Your task to perform on an android device: Add macbook pro 15 inch to the cart on ebay, then select checkout. Image 0: 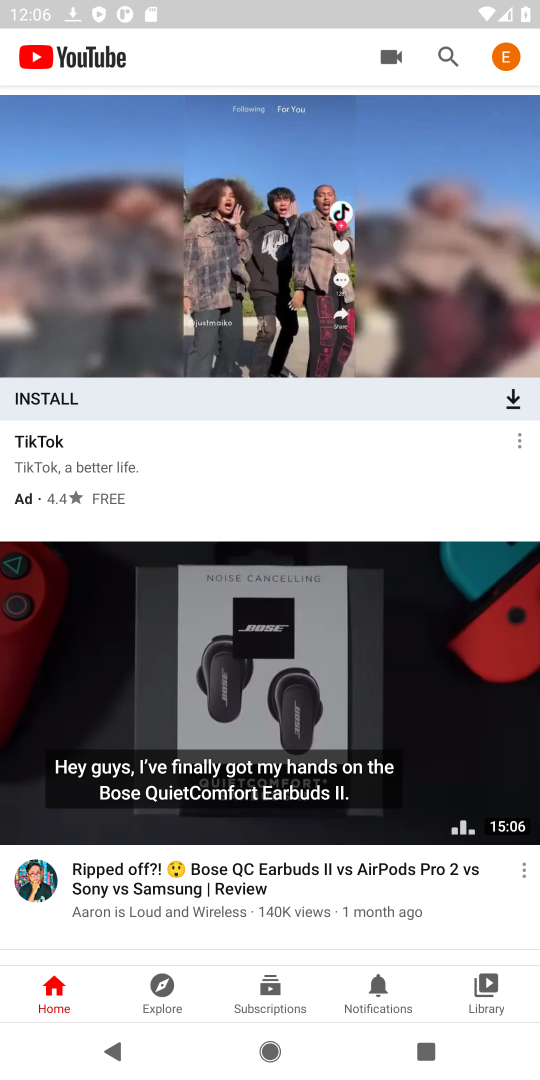
Step 0: press home button
Your task to perform on an android device: Add macbook pro 15 inch to the cart on ebay, then select checkout. Image 1: 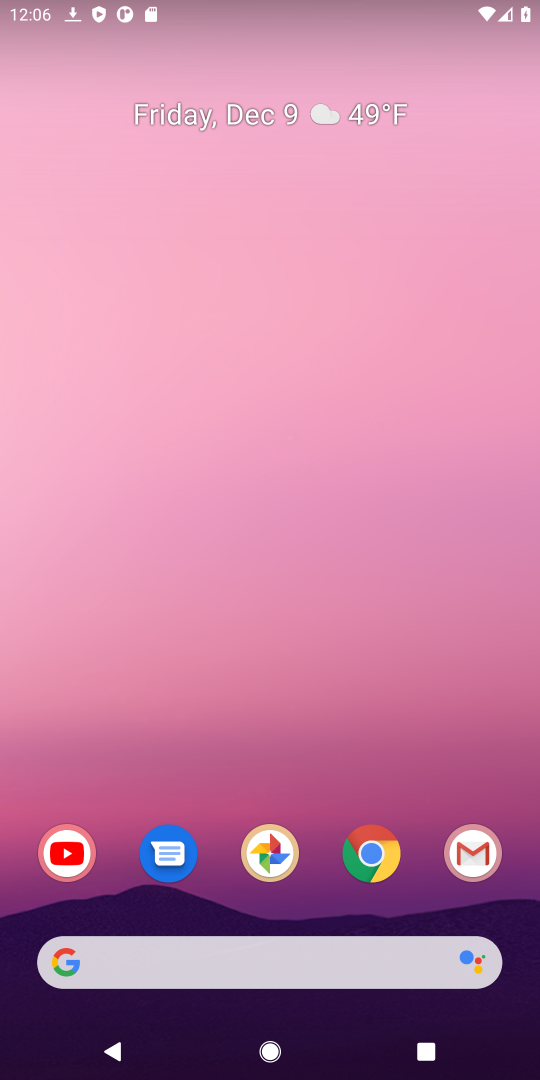
Step 1: drag from (197, 953) to (236, 22)
Your task to perform on an android device: Add macbook pro 15 inch to the cart on ebay, then select checkout. Image 2: 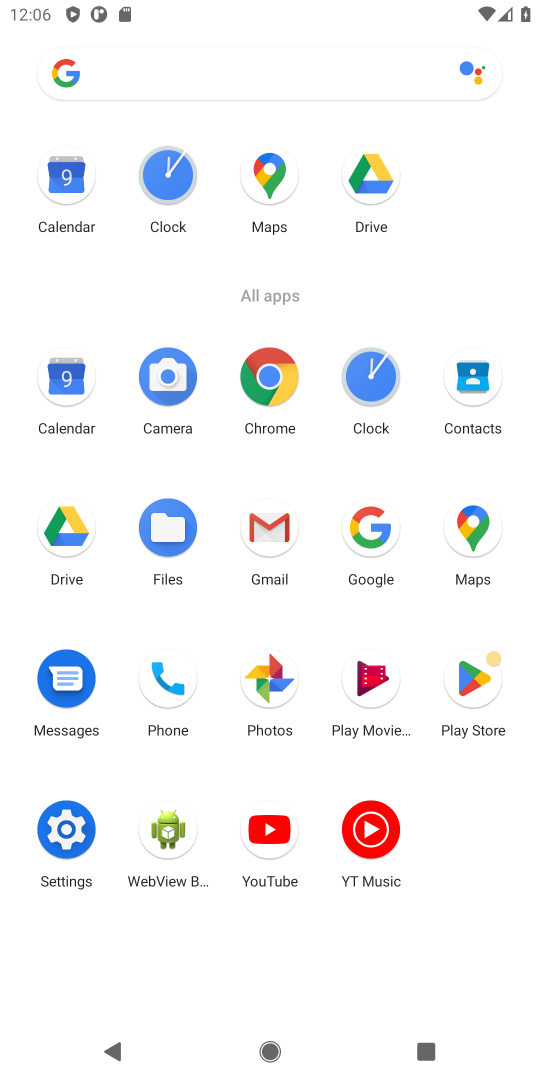
Step 2: click (381, 521)
Your task to perform on an android device: Add macbook pro 15 inch to the cart on ebay, then select checkout. Image 3: 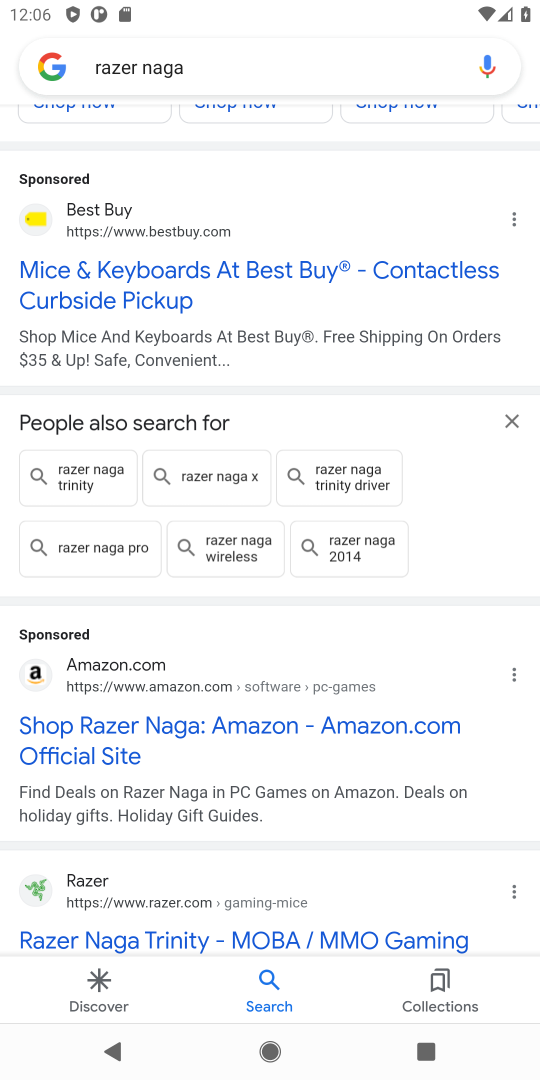
Step 3: drag from (334, 119) to (334, 597)
Your task to perform on an android device: Add macbook pro 15 inch to the cart on ebay, then select checkout. Image 4: 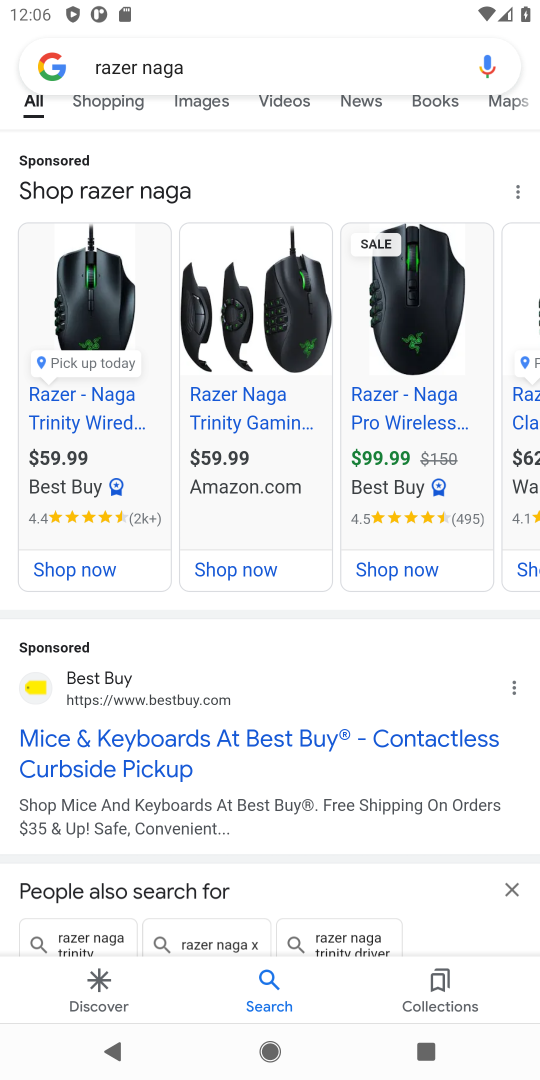
Step 4: drag from (307, 126) to (326, 763)
Your task to perform on an android device: Add macbook pro 15 inch to the cart on ebay, then select checkout. Image 5: 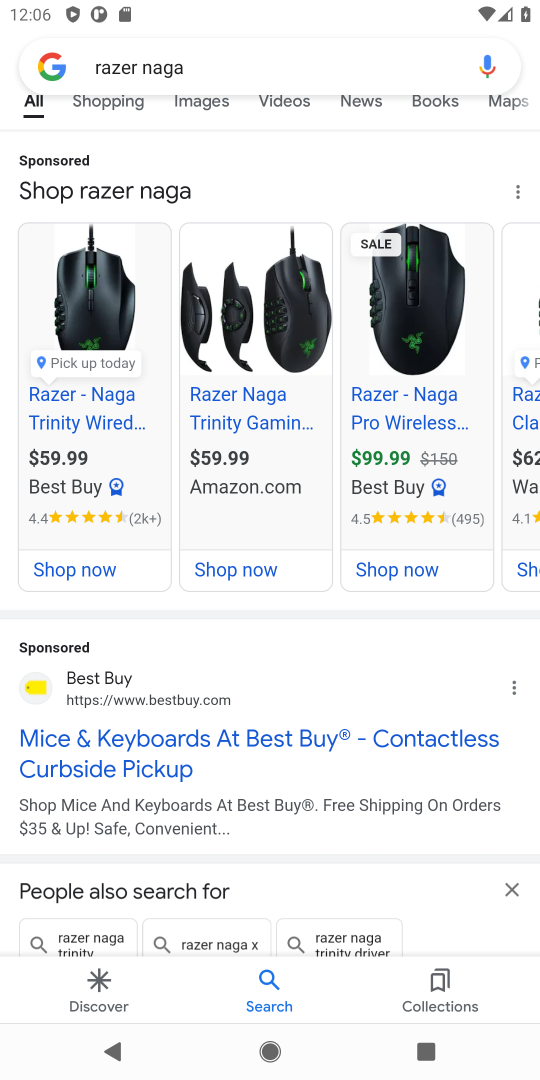
Step 5: click (200, 72)
Your task to perform on an android device: Add macbook pro 15 inch to the cart on ebay, then select checkout. Image 6: 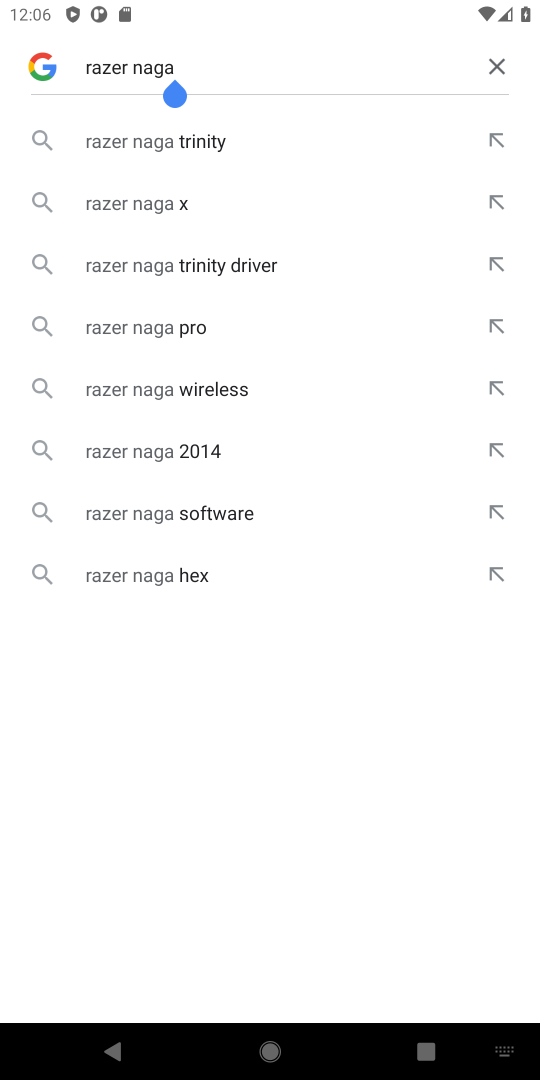
Step 6: click (491, 74)
Your task to perform on an android device: Add macbook pro 15 inch to the cart on ebay, then select checkout. Image 7: 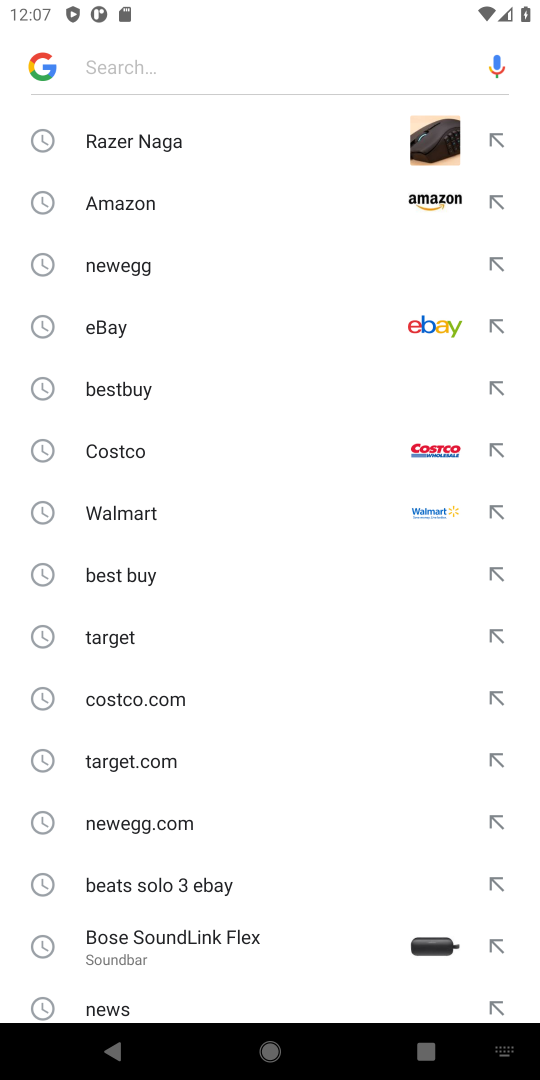
Step 7: type "macbook pro 15"
Your task to perform on an android device: Add macbook pro 15 inch to the cart on ebay, then select checkout. Image 8: 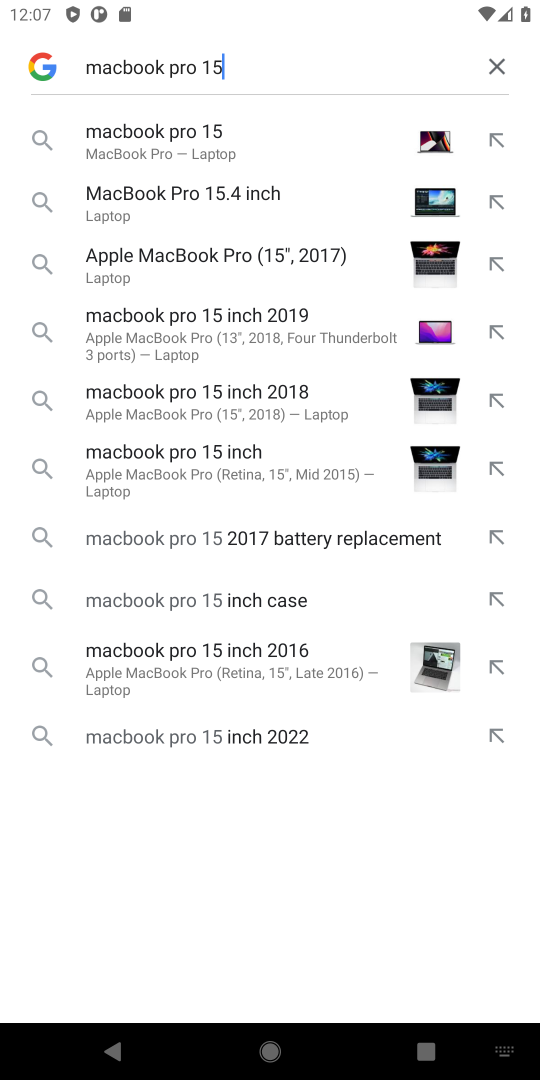
Step 8: click (200, 142)
Your task to perform on an android device: Add macbook pro 15 inch to the cart on ebay, then select checkout. Image 9: 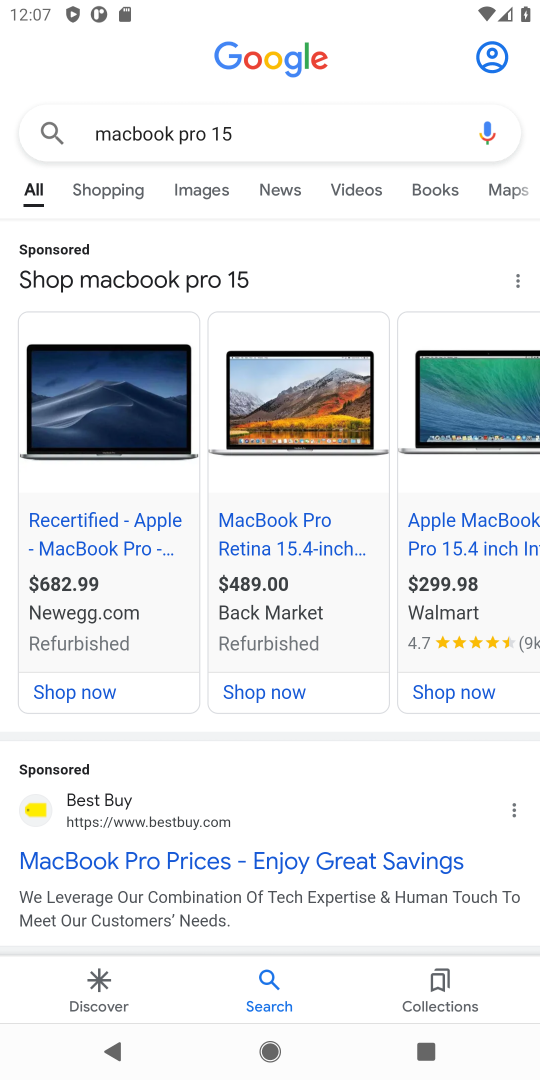
Step 9: click (224, 127)
Your task to perform on an android device: Add macbook pro 15 inch to the cart on ebay, then select checkout. Image 10: 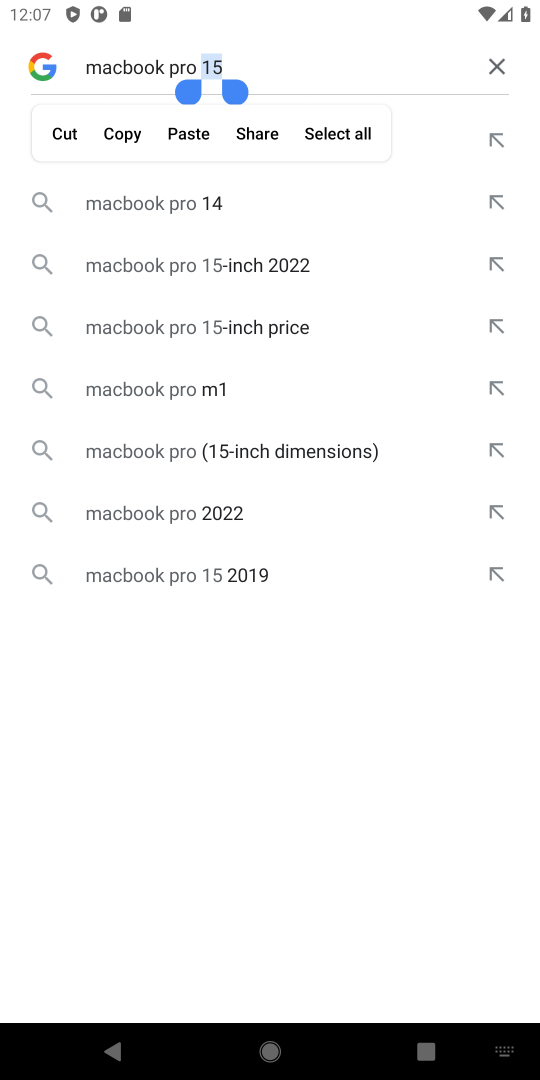
Step 10: click (497, 69)
Your task to perform on an android device: Add macbook pro 15 inch to the cart on ebay, then select checkout. Image 11: 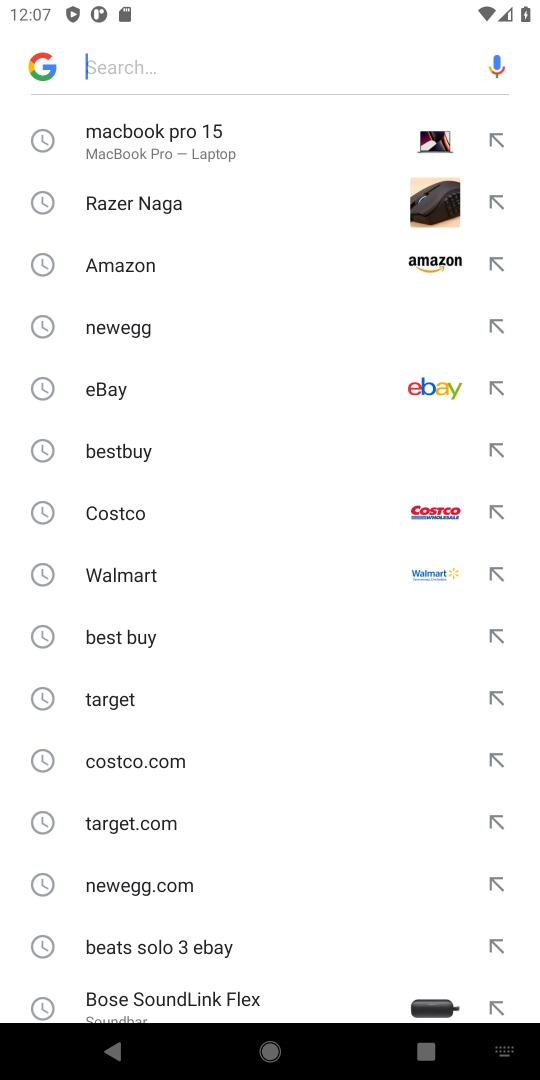
Step 11: type "ebay"
Your task to perform on an android device: Add macbook pro 15 inch to the cart on ebay, then select checkout. Image 12: 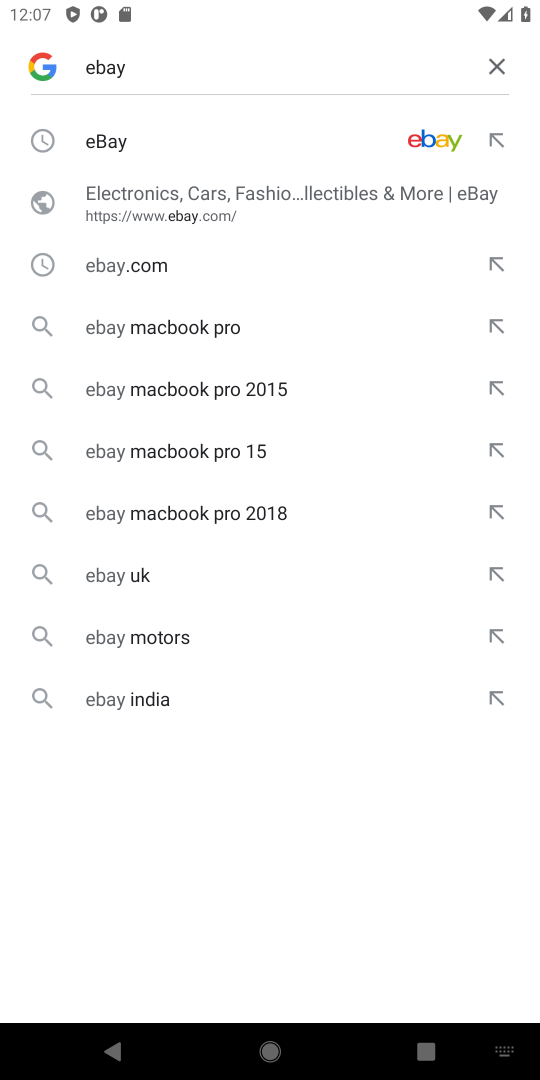
Step 12: click (110, 148)
Your task to perform on an android device: Add macbook pro 15 inch to the cart on ebay, then select checkout. Image 13: 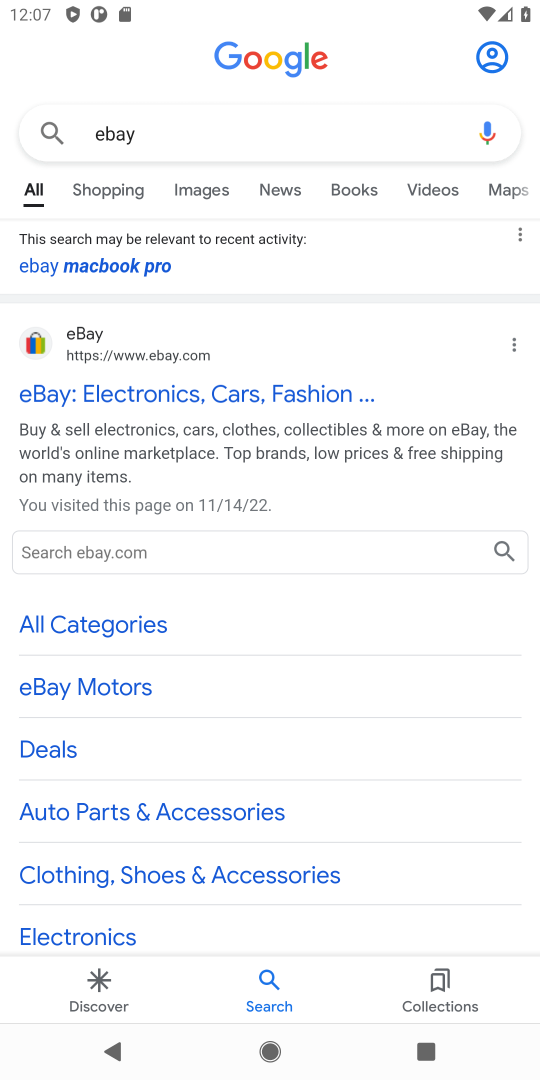
Step 13: click (126, 387)
Your task to perform on an android device: Add macbook pro 15 inch to the cart on ebay, then select checkout. Image 14: 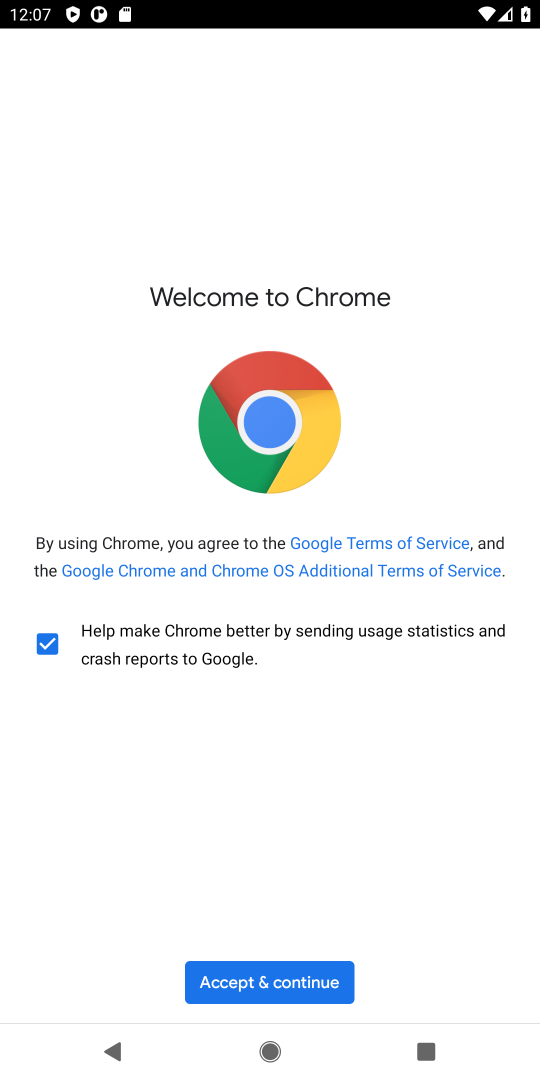
Step 14: click (283, 987)
Your task to perform on an android device: Add macbook pro 15 inch to the cart on ebay, then select checkout. Image 15: 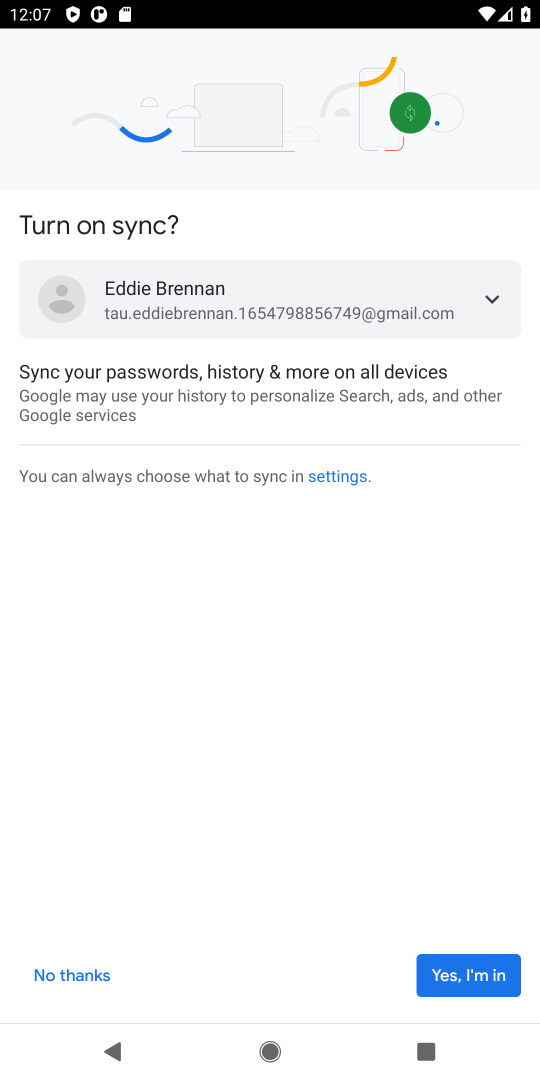
Step 15: click (465, 974)
Your task to perform on an android device: Add macbook pro 15 inch to the cart on ebay, then select checkout. Image 16: 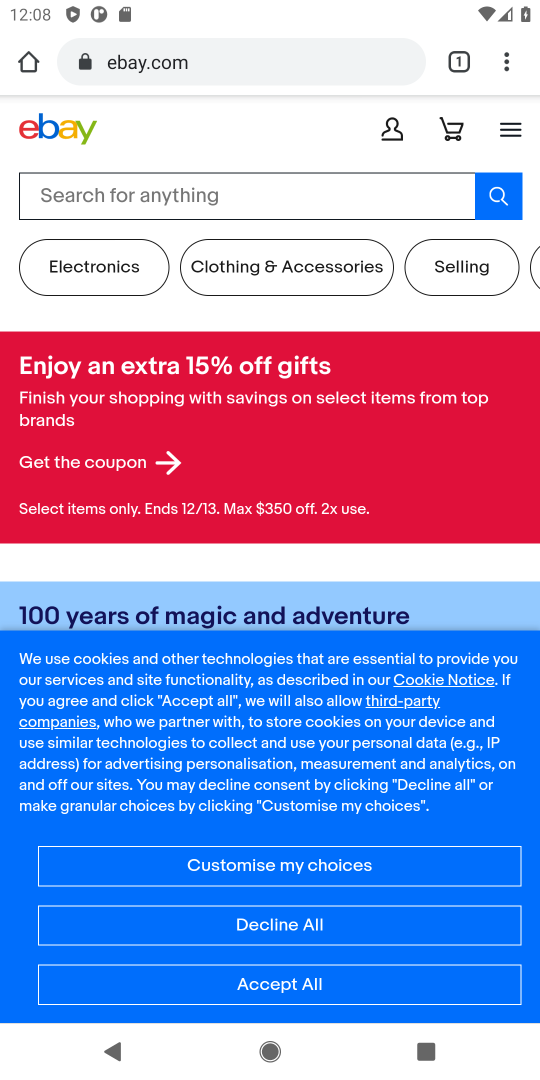
Step 16: click (312, 187)
Your task to perform on an android device: Add macbook pro 15 inch to the cart on ebay, then select checkout. Image 17: 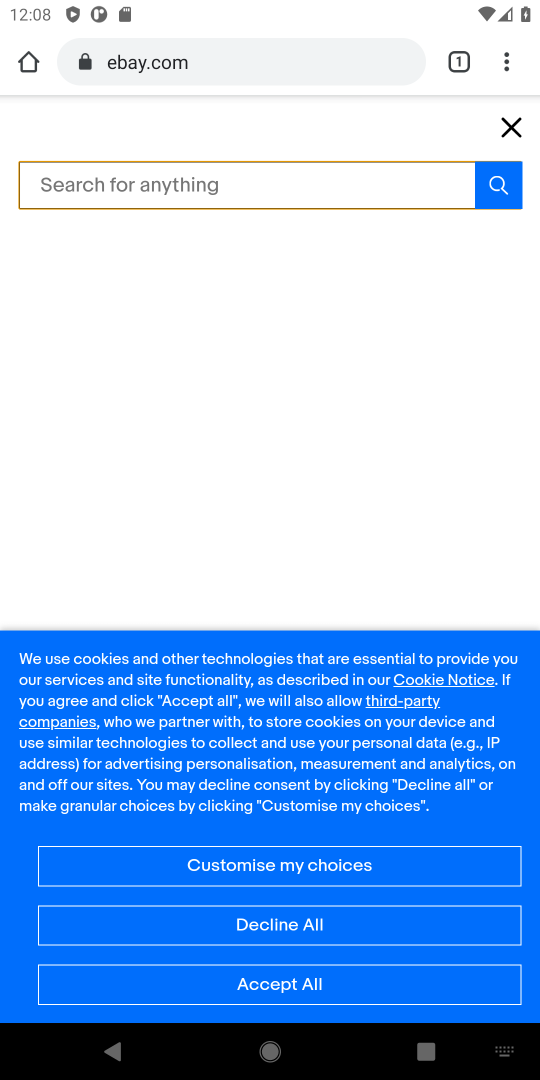
Step 17: click (223, 189)
Your task to perform on an android device: Add macbook pro 15 inch to the cart on ebay, then select checkout. Image 18: 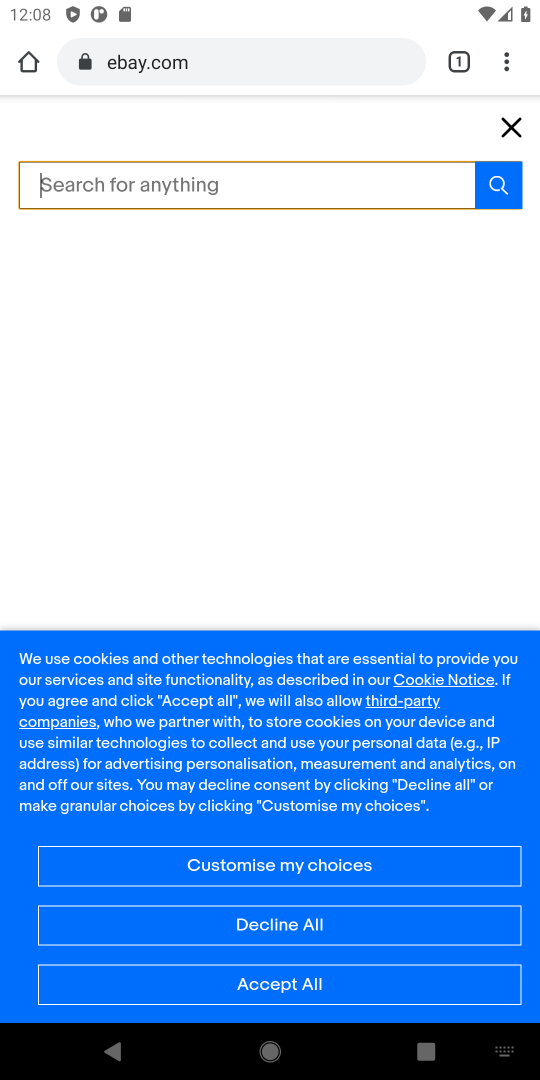
Step 18: click (122, 180)
Your task to perform on an android device: Add macbook pro 15 inch to the cart on ebay, then select checkout. Image 19: 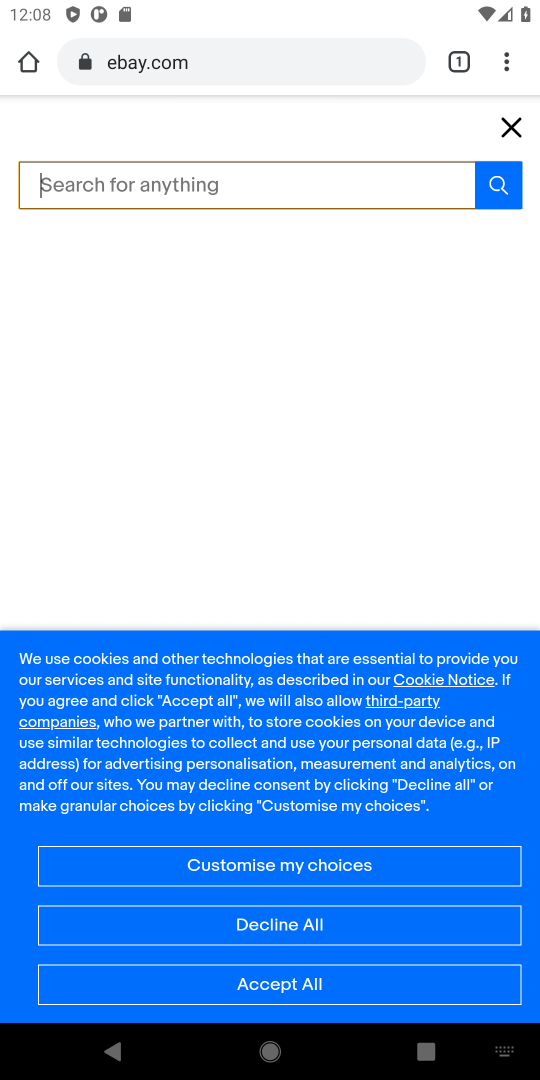
Step 19: click (68, 177)
Your task to perform on an android device: Add macbook pro 15 inch to the cart on ebay, then select checkout. Image 20: 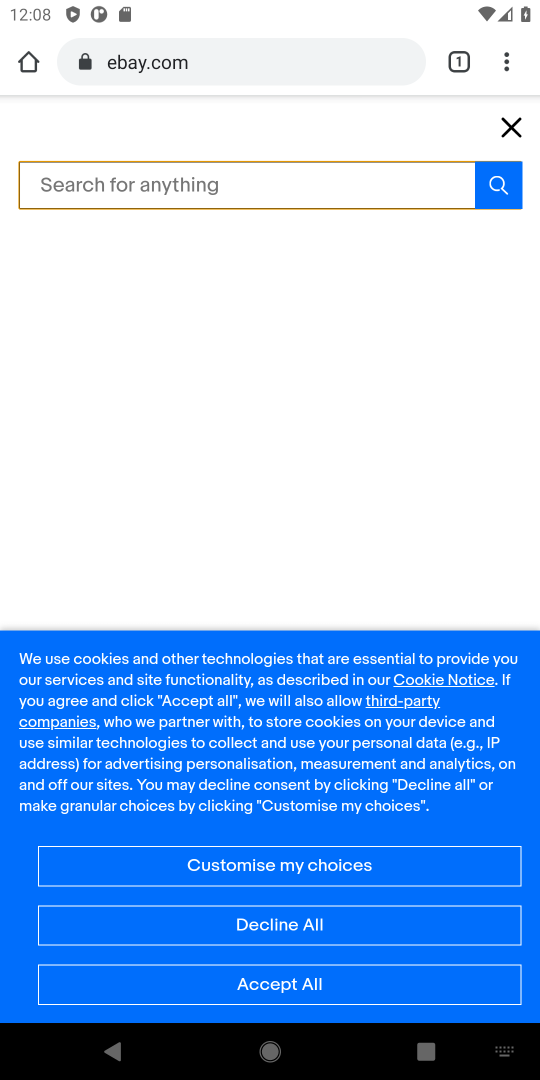
Step 20: click (68, 177)
Your task to perform on an android device: Add macbook pro 15 inch to the cart on ebay, then select checkout. Image 21: 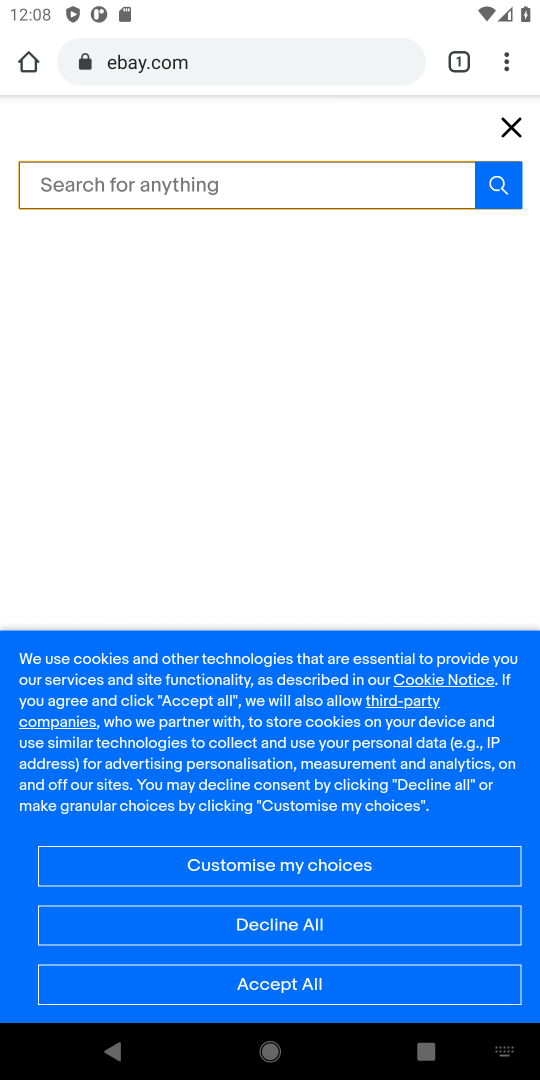
Step 21: type "macbook pro 15"
Your task to perform on an android device: Add macbook pro 15 inch to the cart on ebay, then select checkout. Image 22: 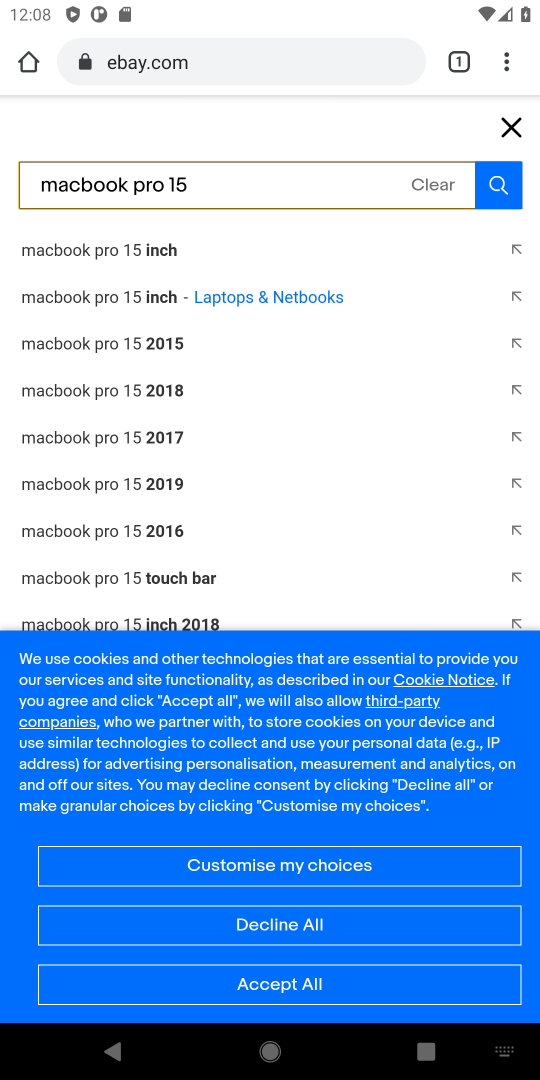
Step 22: click (503, 183)
Your task to perform on an android device: Add macbook pro 15 inch to the cart on ebay, then select checkout. Image 23: 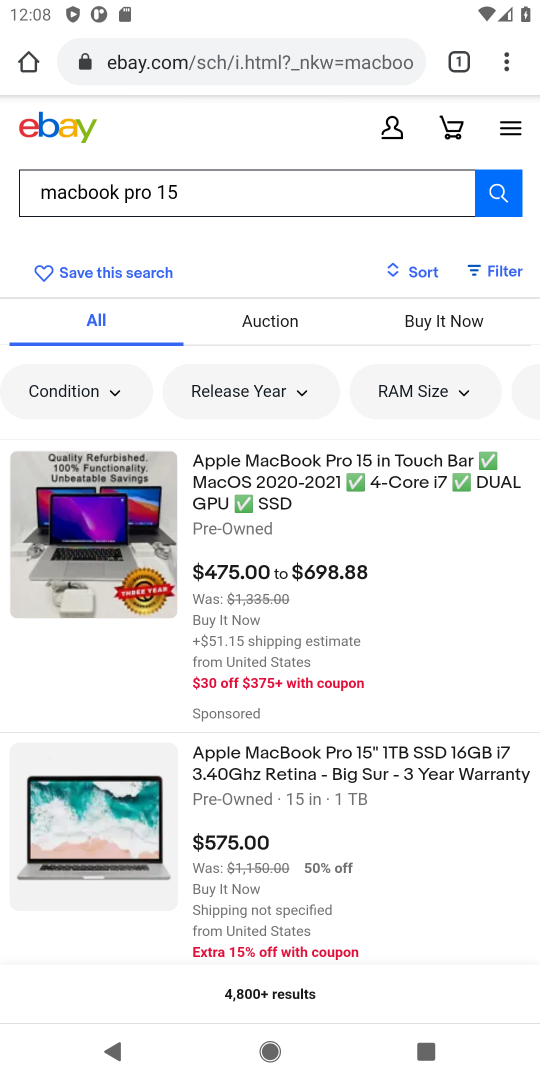
Step 23: click (275, 500)
Your task to perform on an android device: Add macbook pro 15 inch to the cart on ebay, then select checkout. Image 24: 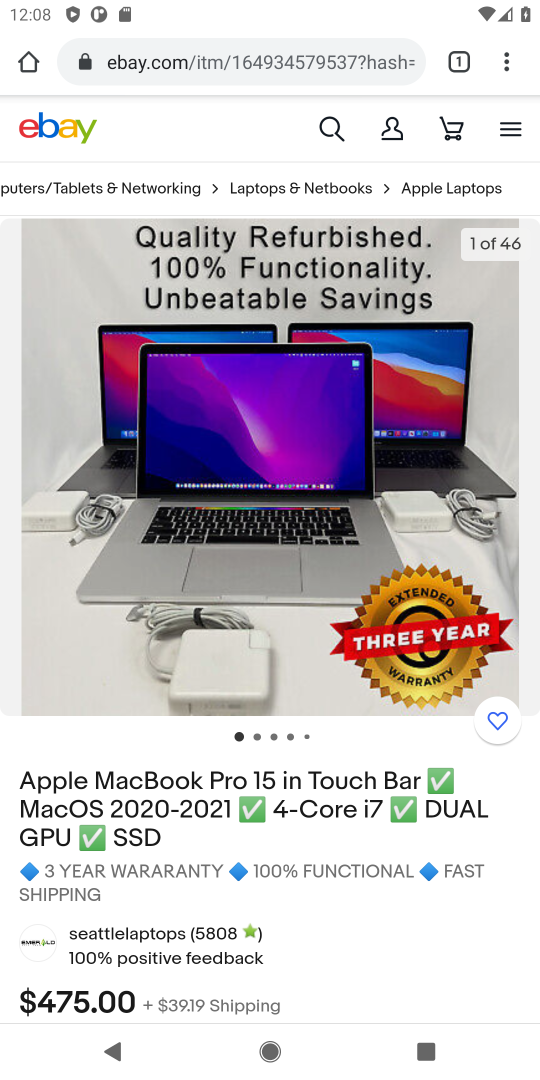
Step 24: drag from (361, 974) to (469, 104)
Your task to perform on an android device: Add macbook pro 15 inch to the cart on ebay, then select checkout. Image 25: 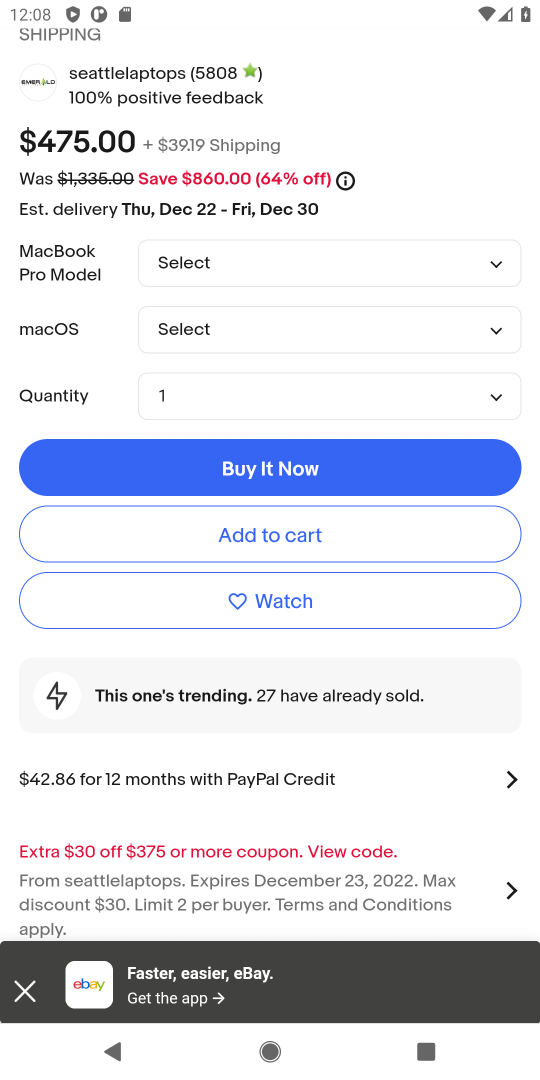
Step 25: click (243, 535)
Your task to perform on an android device: Add macbook pro 15 inch to the cart on ebay, then select checkout. Image 26: 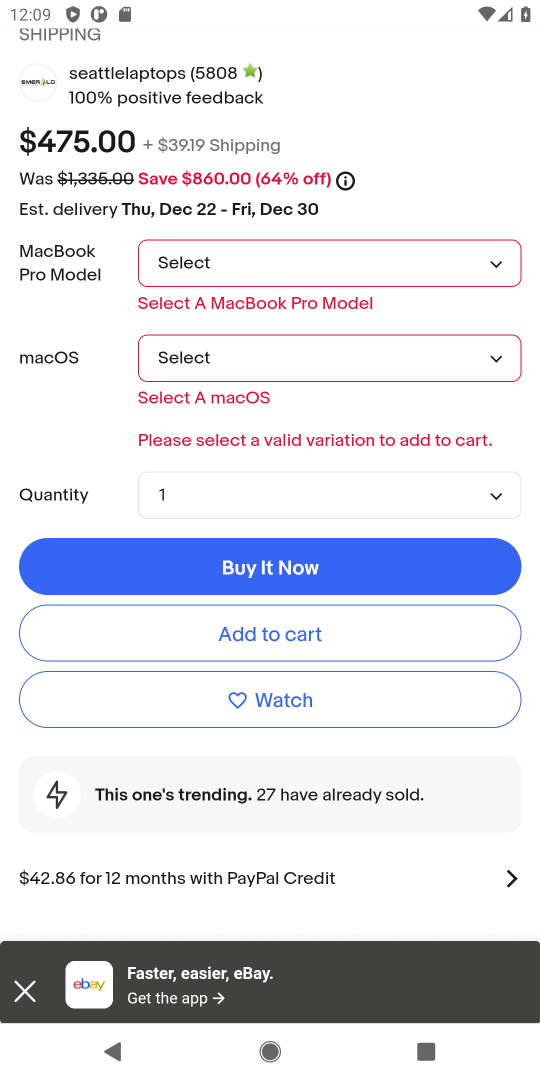
Step 26: click (501, 276)
Your task to perform on an android device: Add macbook pro 15 inch to the cart on ebay, then select checkout. Image 27: 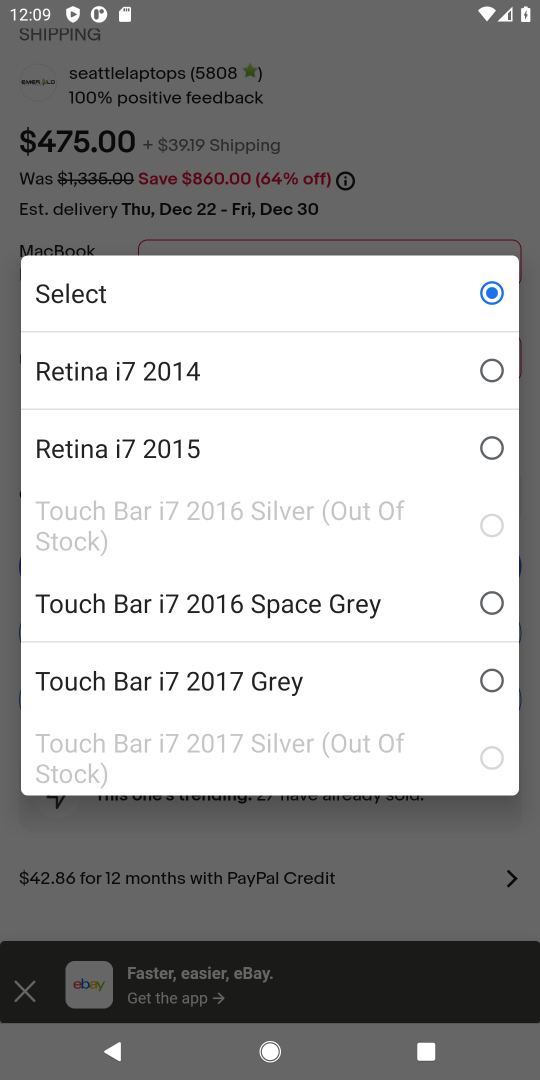
Step 27: click (14, 66)
Your task to perform on an android device: Add macbook pro 15 inch to the cart on ebay, then select checkout. Image 28: 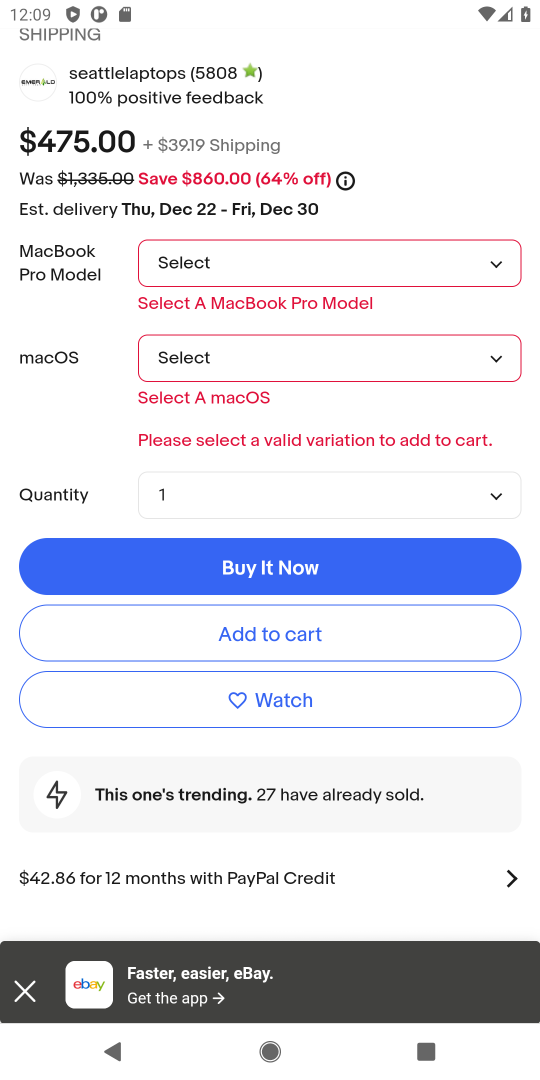
Step 28: click (502, 254)
Your task to perform on an android device: Add macbook pro 15 inch to the cart on ebay, then select checkout. Image 29: 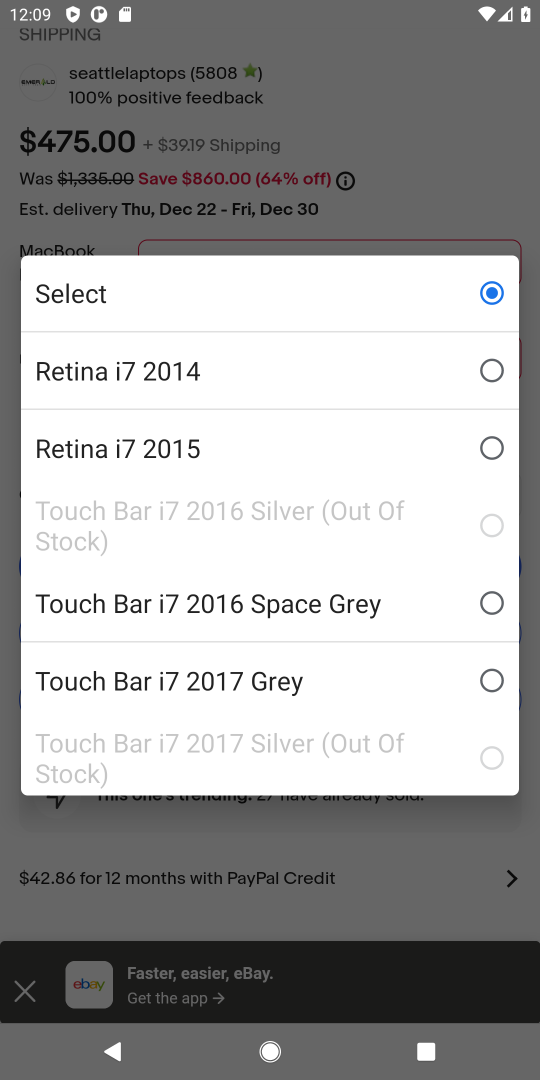
Step 29: click (494, 269)
Your task to perform on an android device: Add macbook pro 15 inch to the cart on ebay, then select checkout. Image 30: 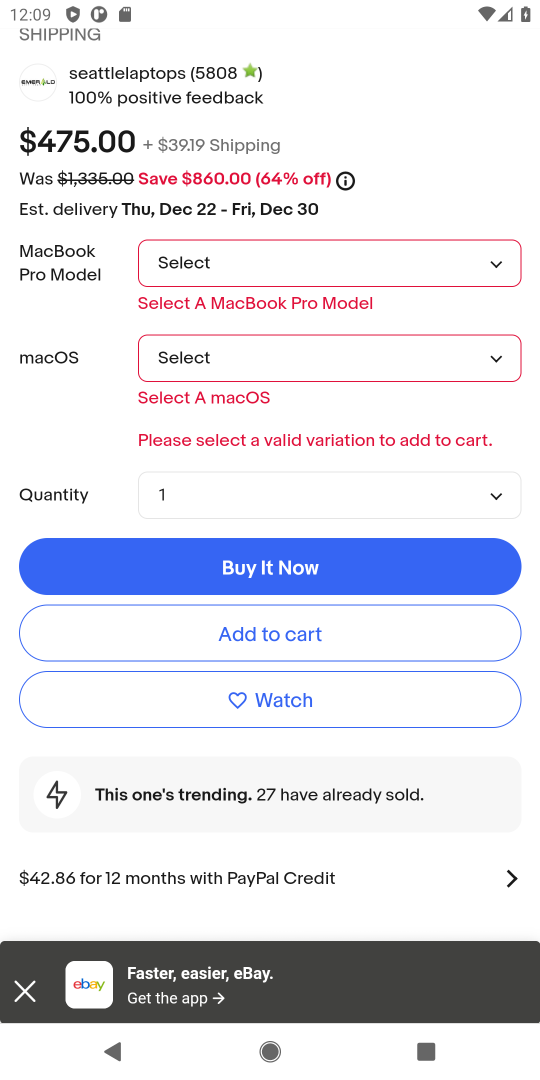
Step 30: click (497, 367)
Your task to perform on an android device: Add macbook pro 15 inch to the cart on ebay, then select checkout. Image 31: 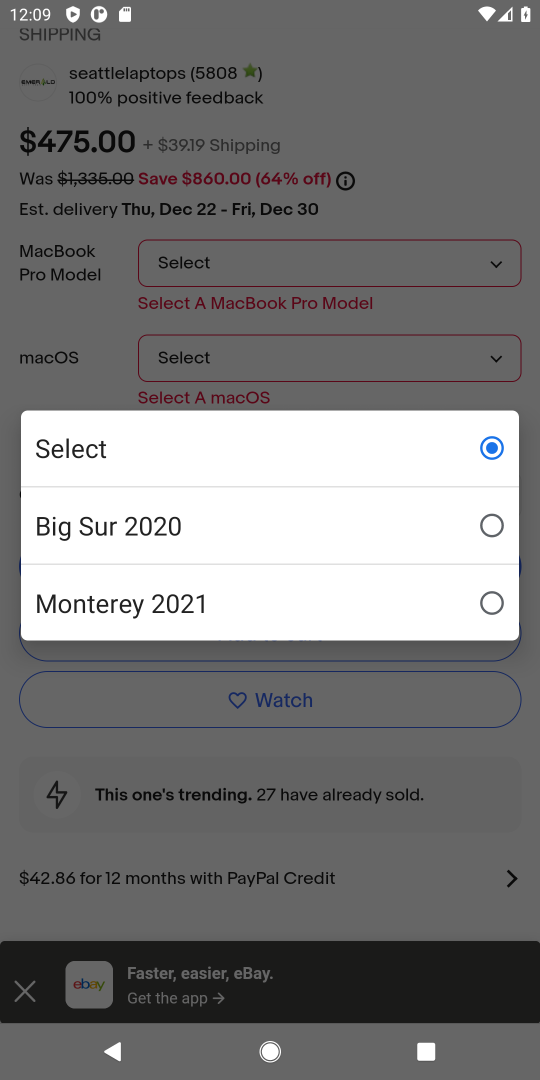
Step 31: click (490, 605)
Your task to perform on an android device: Add macbook pro 15 inch to the cart on ebay, then select checkout. Image 32: 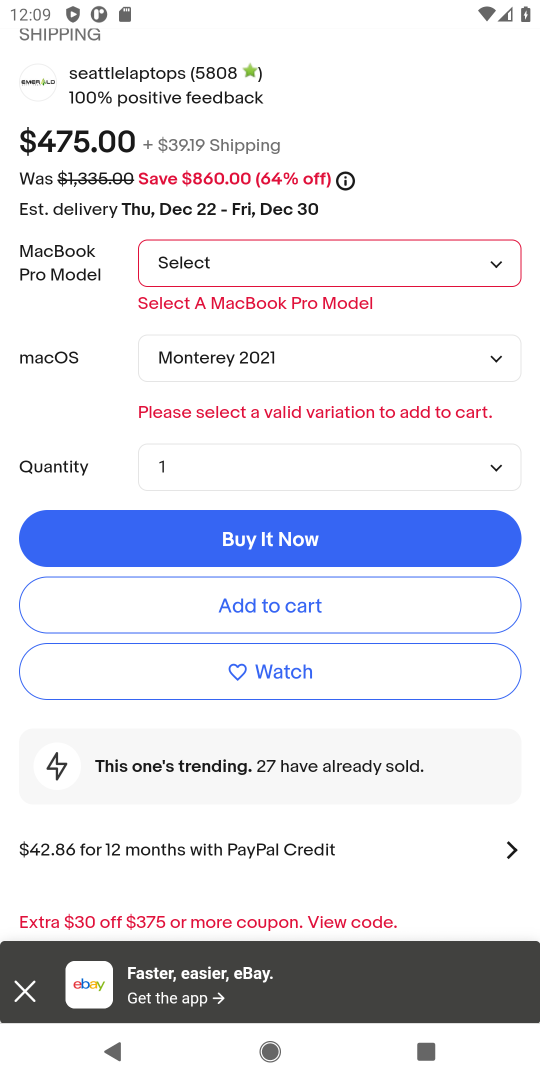
Step 32: click (505, 258)
Your task to perform on an android device: Add macbook pro 15 inch to the cart on ebay, then select checkout. Image 33: 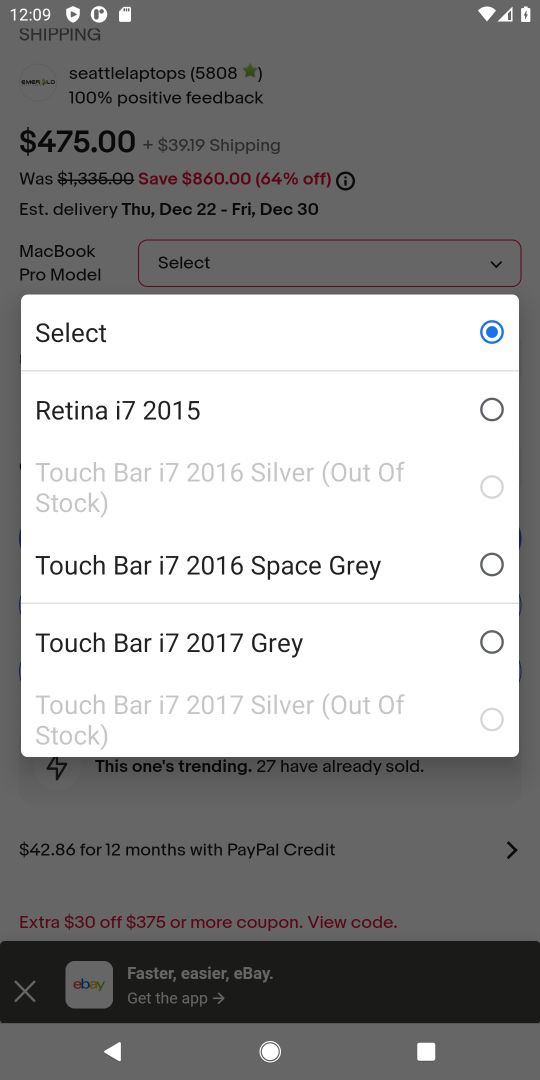
Step 33: click (496, 403)
Your task to perform on an android device: Add macbook pro 15 inch to the cart on ebay, then select checkout. Image 34: 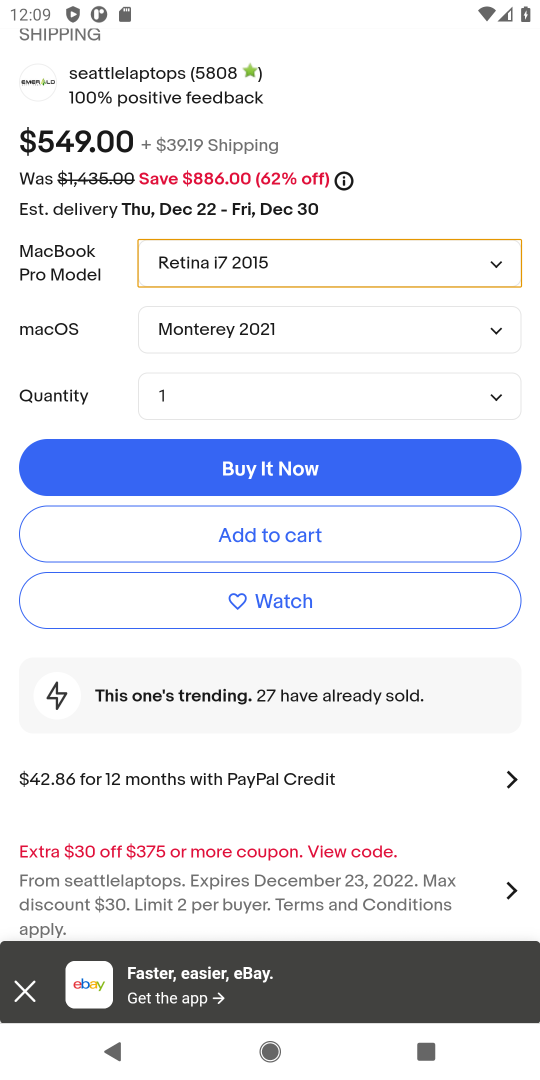
Step 34: click (294, 535)
Your task to perform on an android device: Add macbook pro 15 inch to the cart on ebay, then select checkout. Image 35: 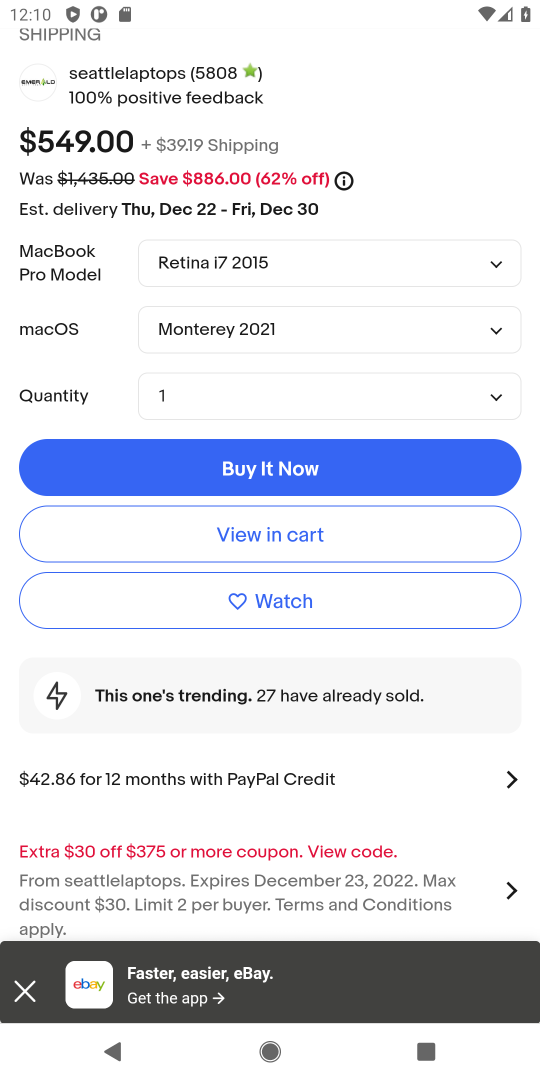
Step 35: drag from (340, 108) to (413, 595)
Your task to perform on an android device: Add macbook pro 15 inch to the cart on ebay, then select checkout. Image 36: 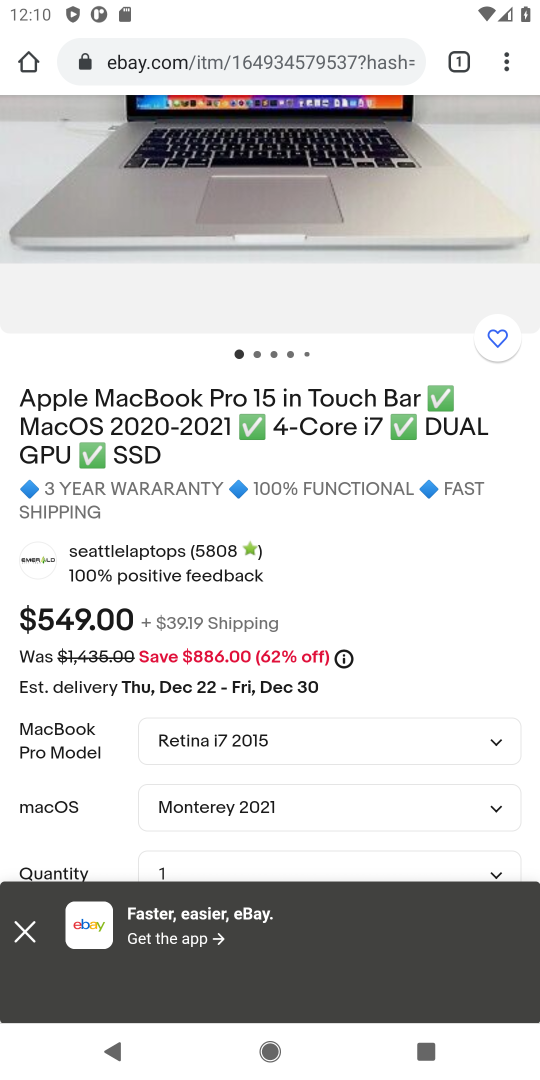
Step 36: drag from (340, 203) to (350, 708)
Your task to perform on an android device: Add macbook pro 15 inch to the cart on ebay, then select checkout. Image 37: 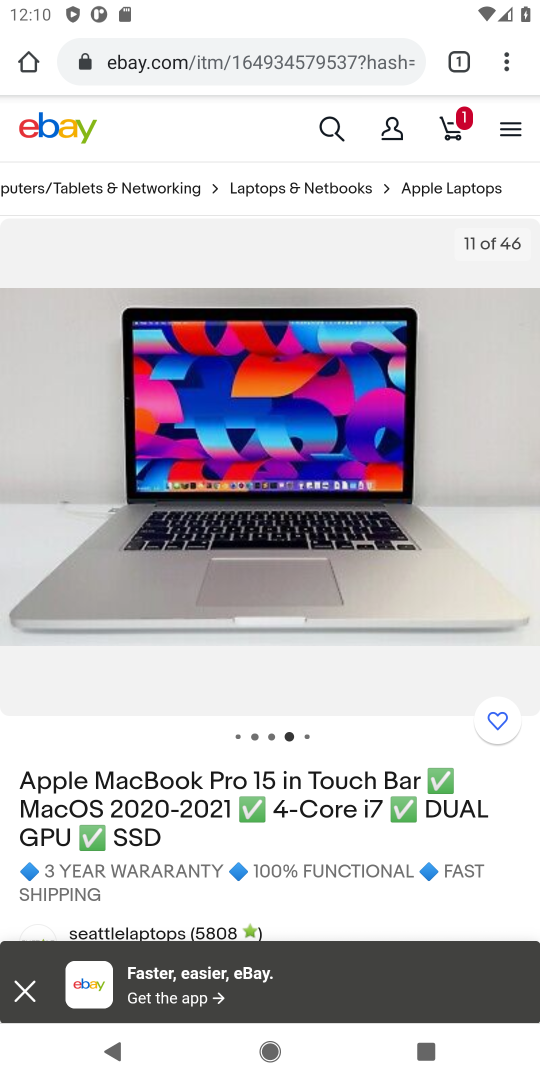
Step 37: click (459, 127)
Your task to perform on an android device: Add macbook pro 15 inch to the cart on ebay, then select checkout. Image 38: 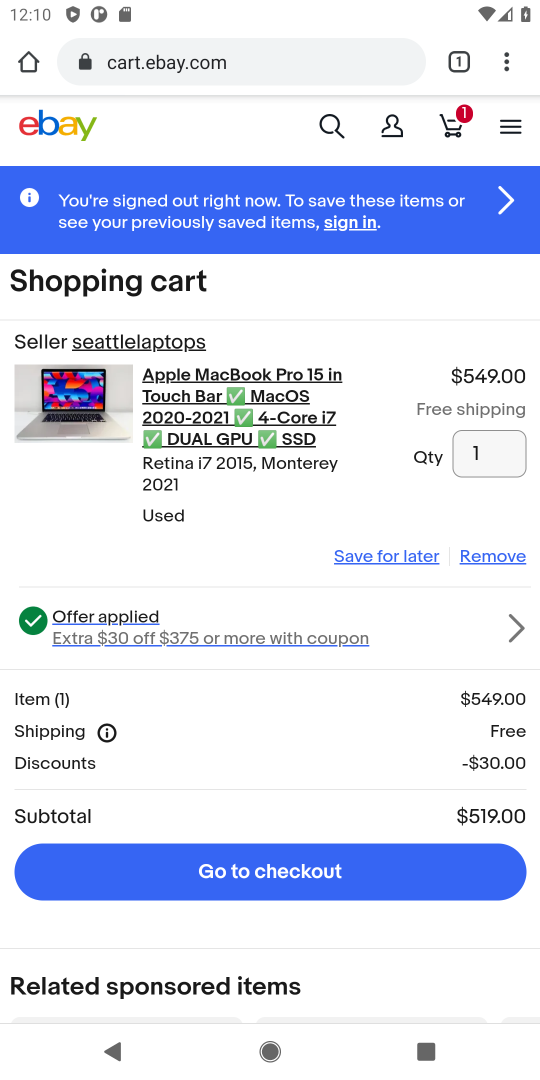
Step 38: click (242, 882)
Your task to perform on an android device: Add macbook pro 15 inch to the cart on ebay, then select checkout. Image 39: 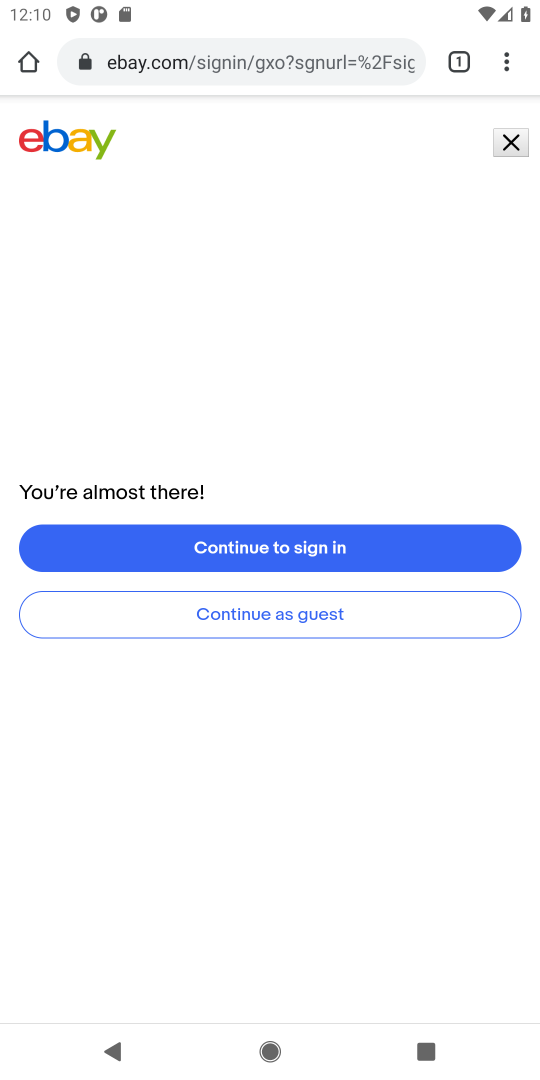
Step 39: click (503, 144)
Your task to perform on an android device: Add macbook pro 15 inch to the cart on ebay, then select checkout. Image 40: 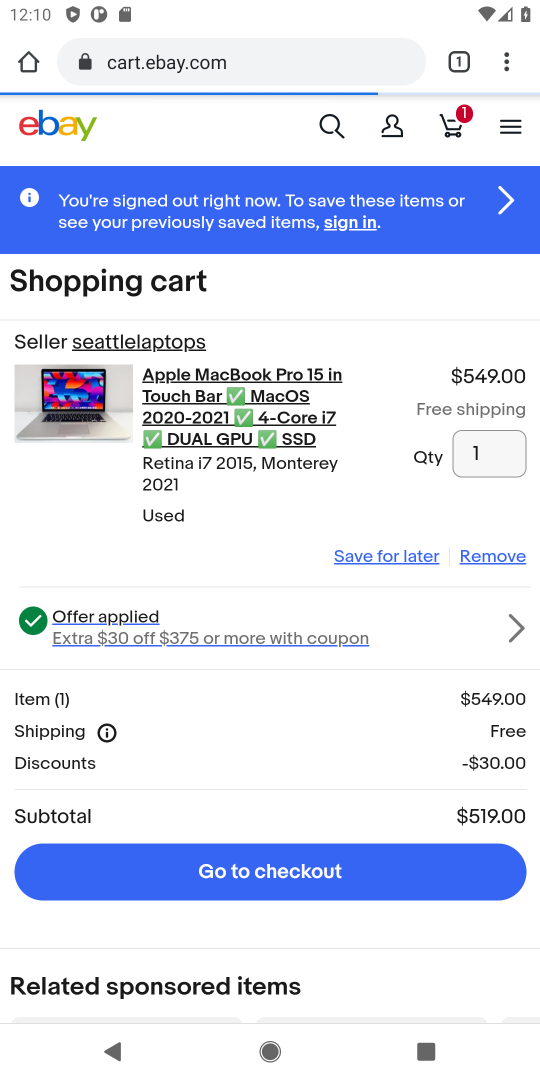
Step 40: task complete